Your task to perform on an android device: toggle data saver in the chrome app Image 0: 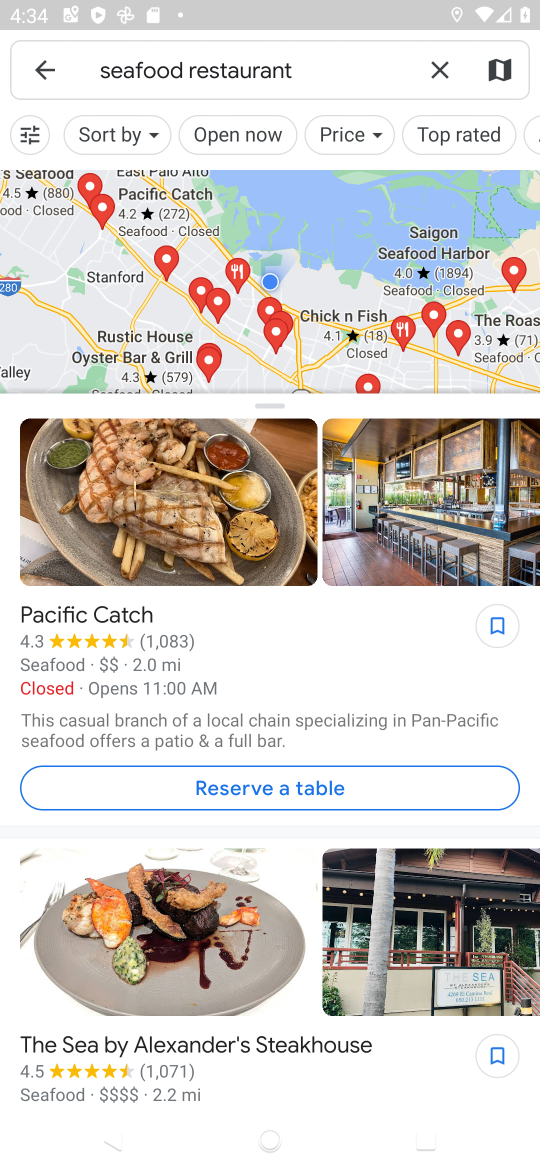
Step 0: press home button
Your task to perform on an android device: toggle data saver in the chrome app Image 1: 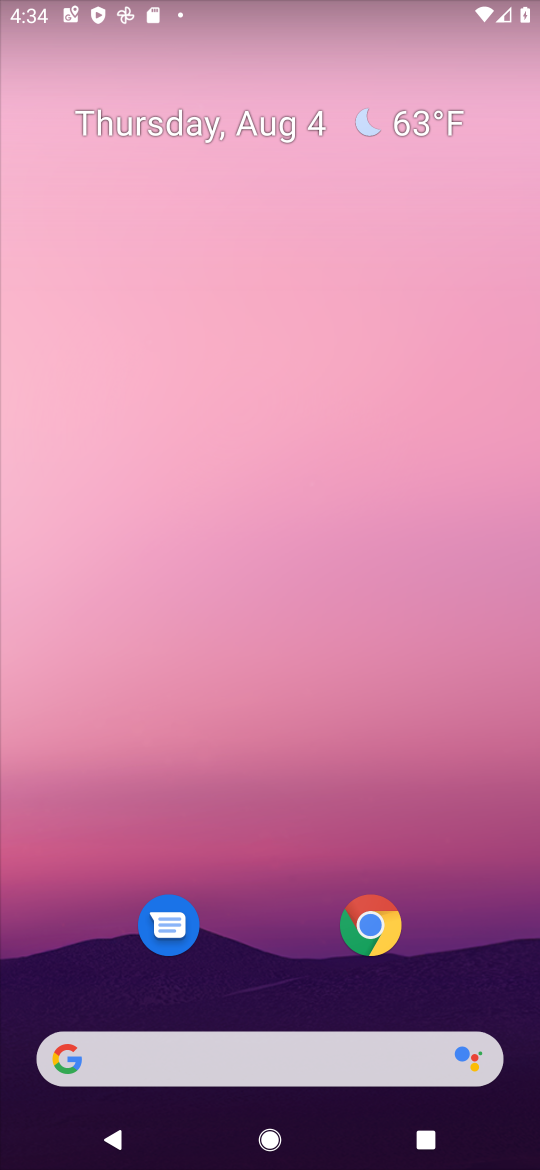
Step 1: click (365, 927)
Your task to perform on an android device: toggle data saver in the chrome app Image 2: 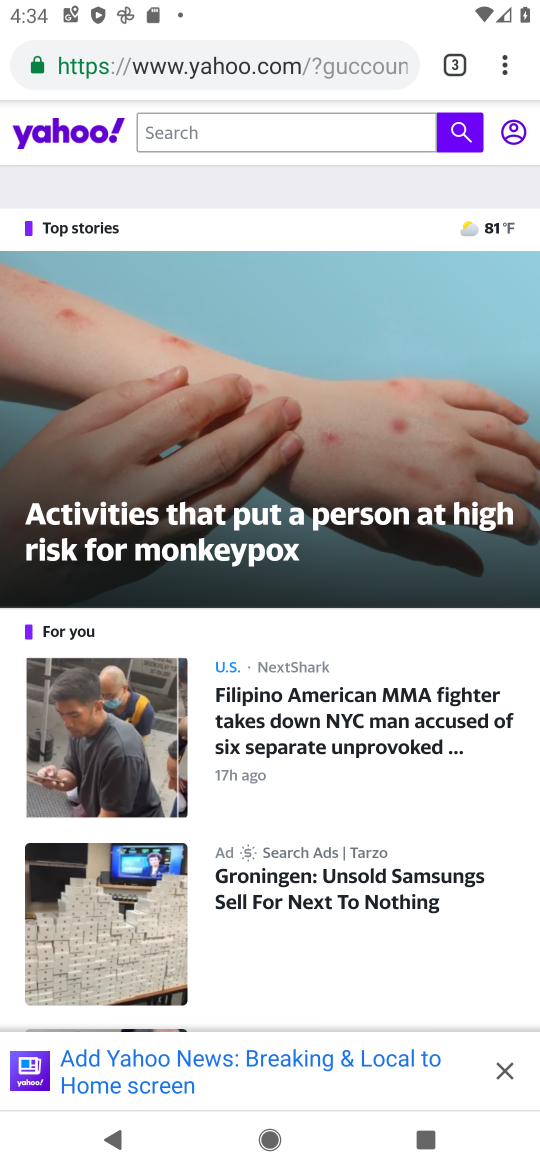
Step 2: click (495, 60)
Your task to perform on an android device: toggle data saver in the chrome app Image 3: 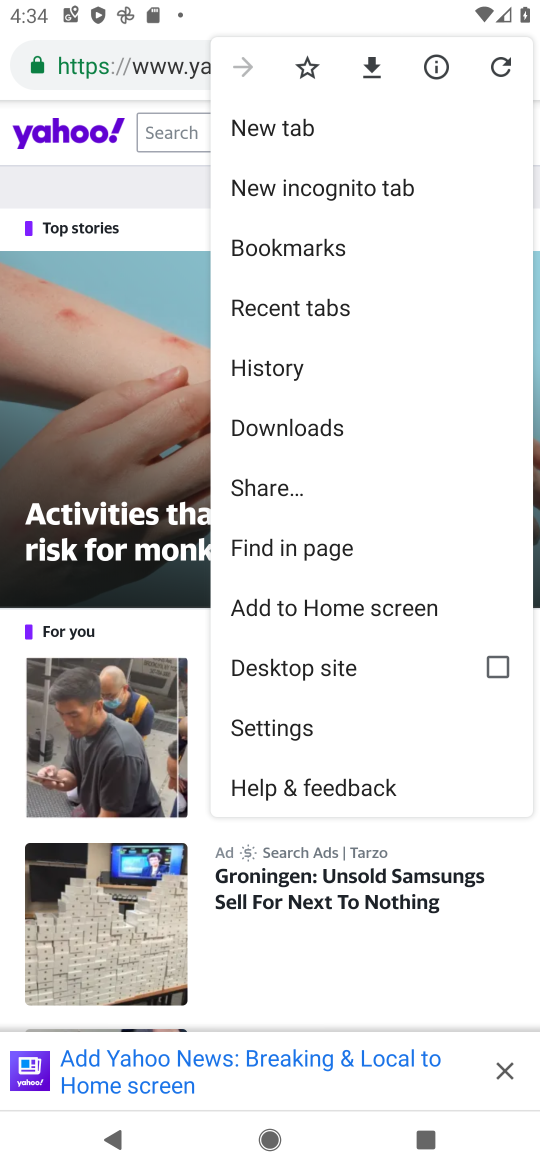
Step 3: click (280, 729)
Your task to perform on an android device: toggle data saver in the chrome app Image 4: 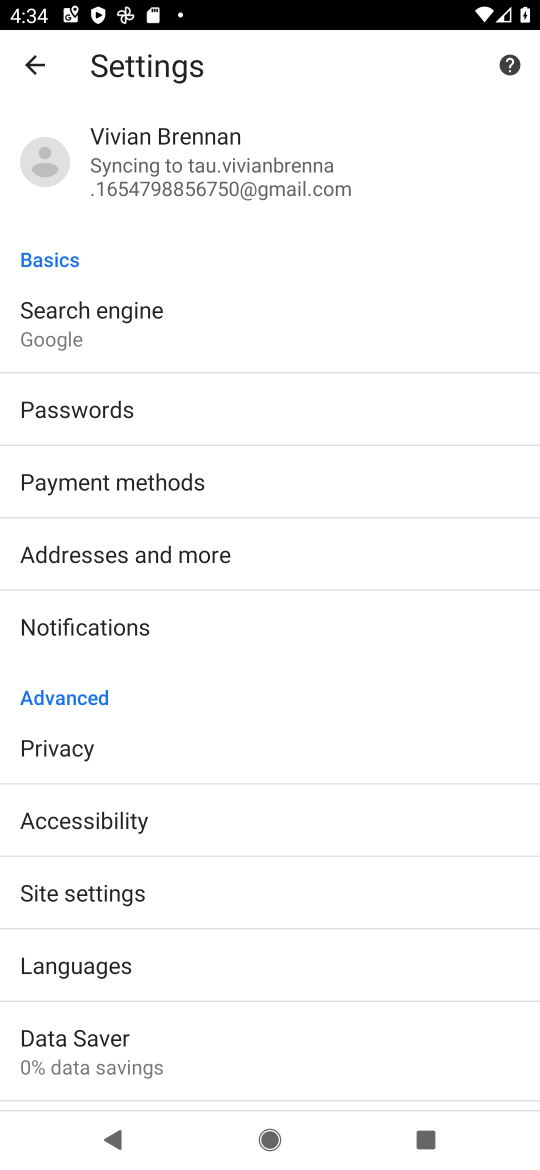
Step 4: click (145, 1073)
Your task to perform on an android device: toggle data saver in the chrome app Image 5: 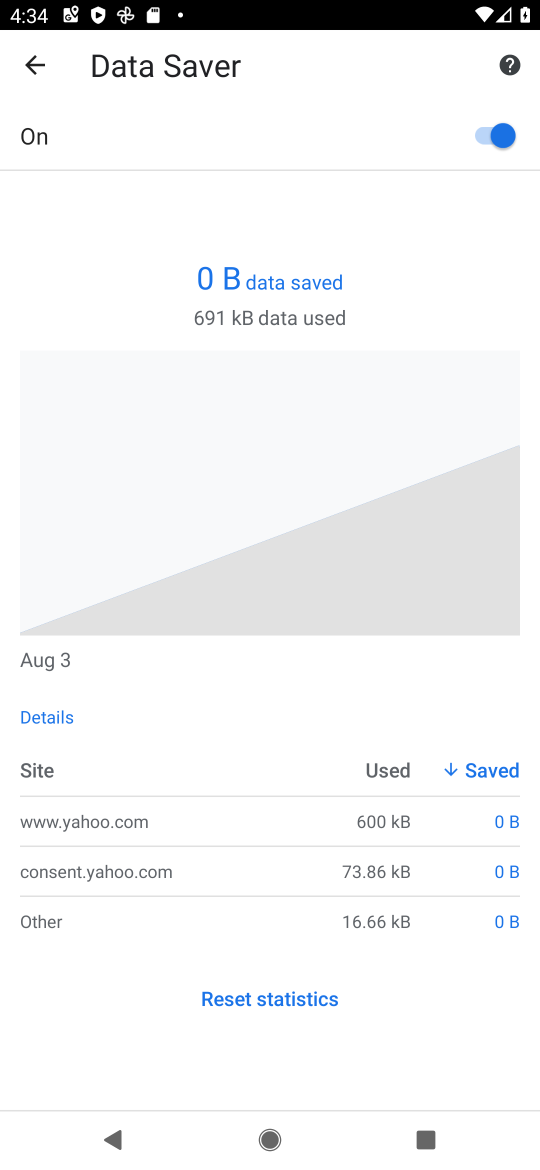
Step 5: click (502, 136)
Your task to perform on an android device: toggle data saver in the chrome app Image 6: 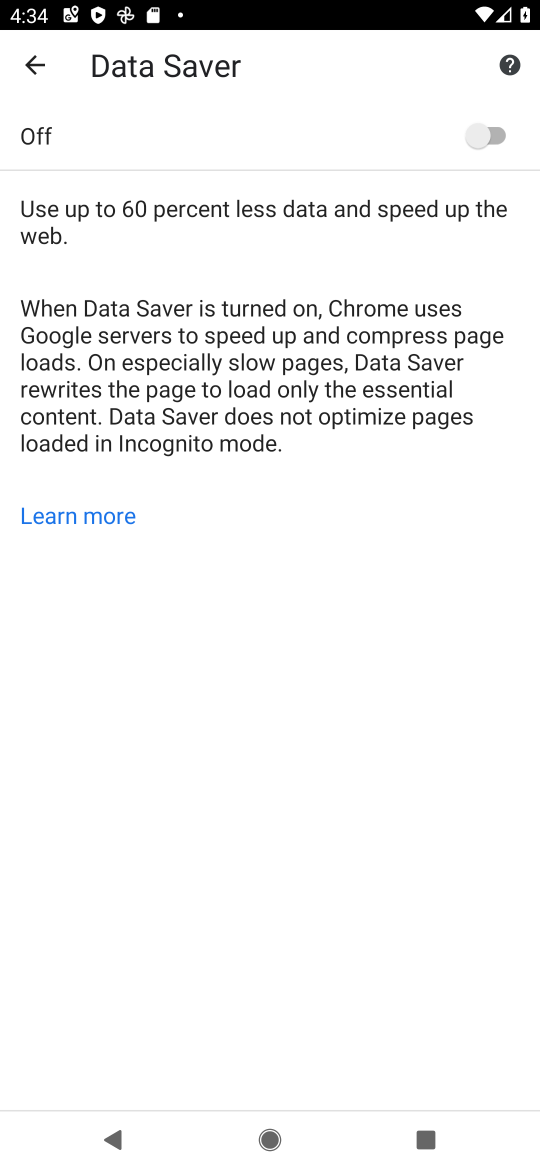
Step 6: task complete